Your task to perform on an android device: Add "razer blackwidow" to the cart on walmart, then select checkout. Image 0: 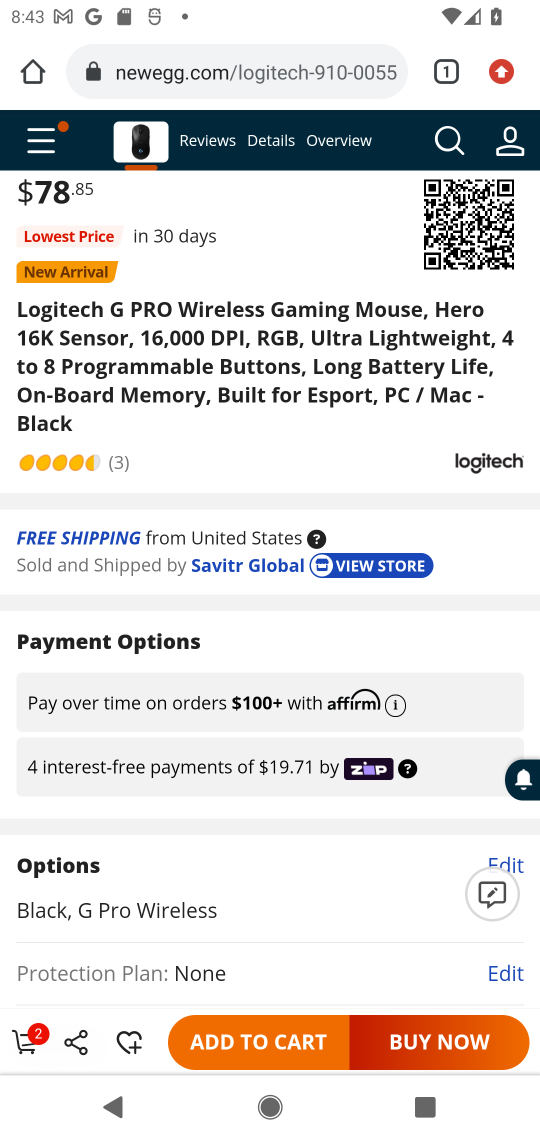
Step 0: click (313, 62)
Your task to perform on an android device: Add "razer blackwidow" to the cart on walmart, then select checkout. Image 1: 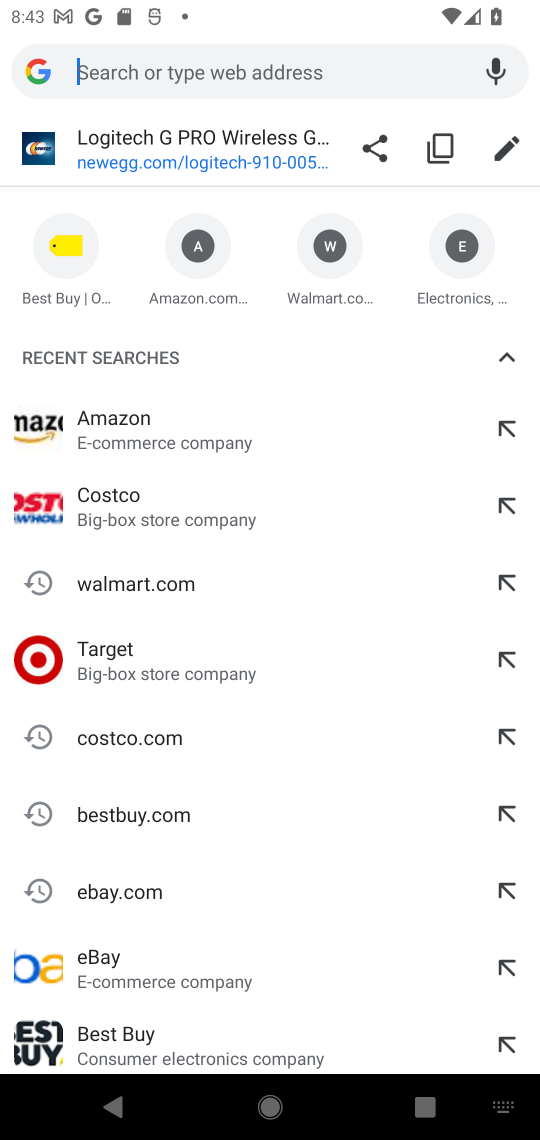
Step 1: type "walmart"
Your task to perform on an android device: Add "razer blackwidow" to the cart on walmart, then select checkout. Image 2: 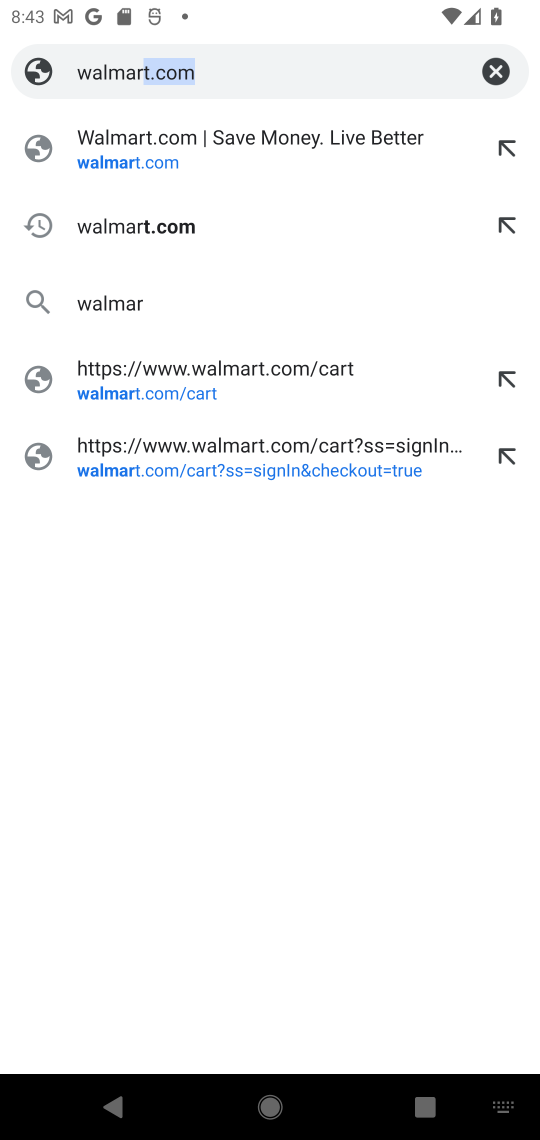
Step 2: press enter
Your task to perform on an android device: Add "razer blackwidow" to the cart on walmart, then select checkout. Image 3: 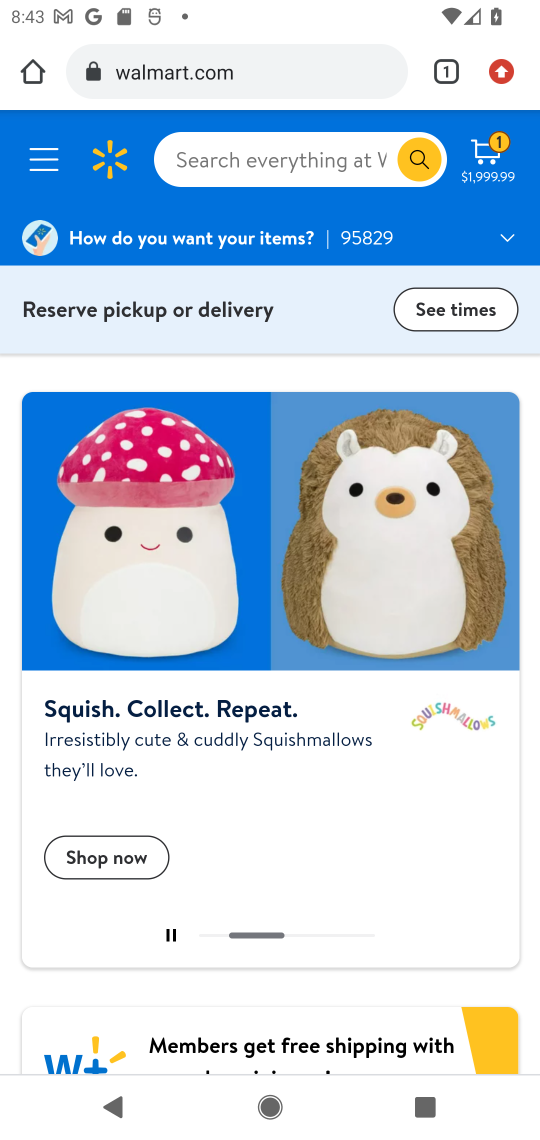
Step 3: click (240, 145)
Your task to perform on an android device: Add "razer blackwidow" to the cart on walmart, then select checkout. Image 4: 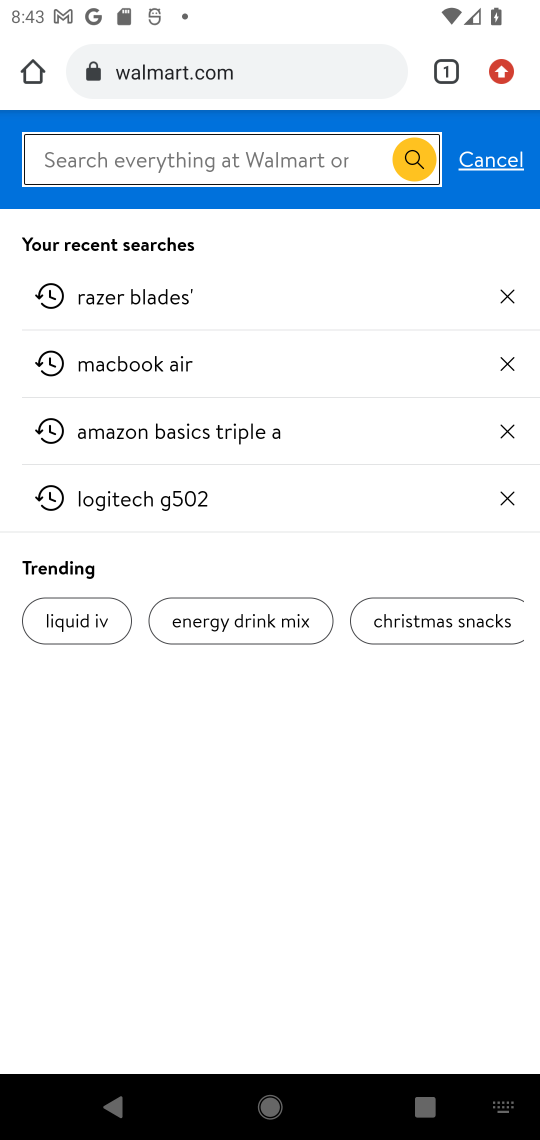
Step 4: type "razer blackwidow"
Your task to perform on an android device: Add "razer blackwidow" to the cart on walmart, then select checkout. Image 5: 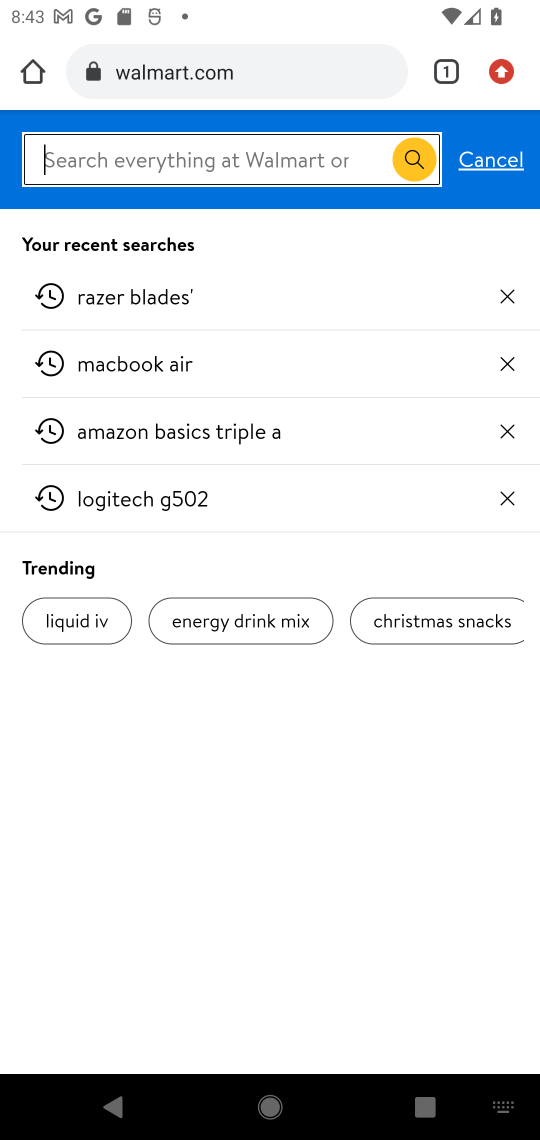
Step 5: press enter
Your task to perform on an android device: Add "razer blackwidow" to the cart on walmart, then select checkout. Image 6: 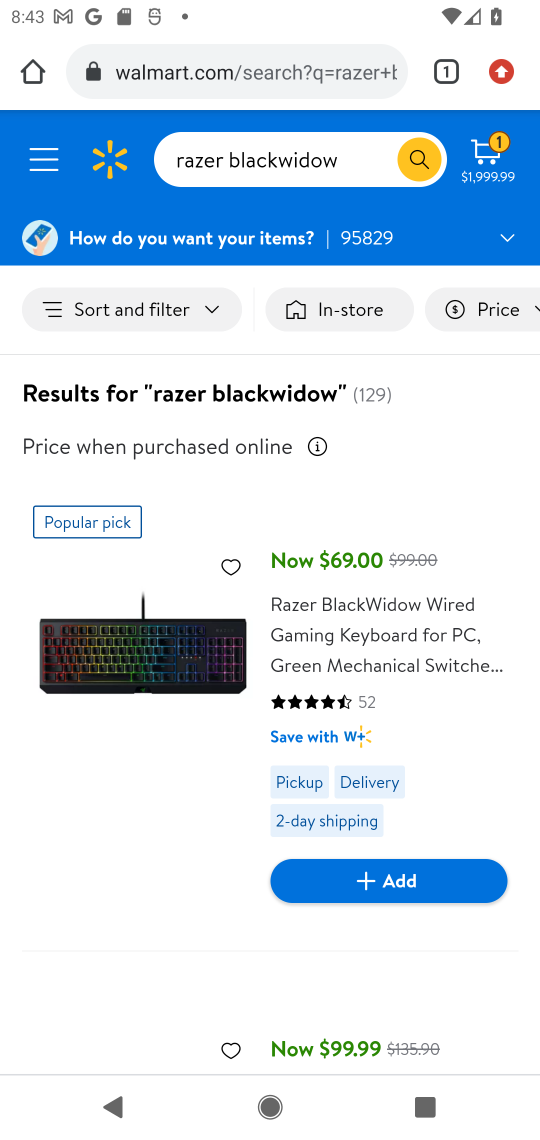
Step 6: click (124, 662)
Your task to perform on an android device: Add "razer blackwidow" to the cart on walmart, then select checkout. Image 7: 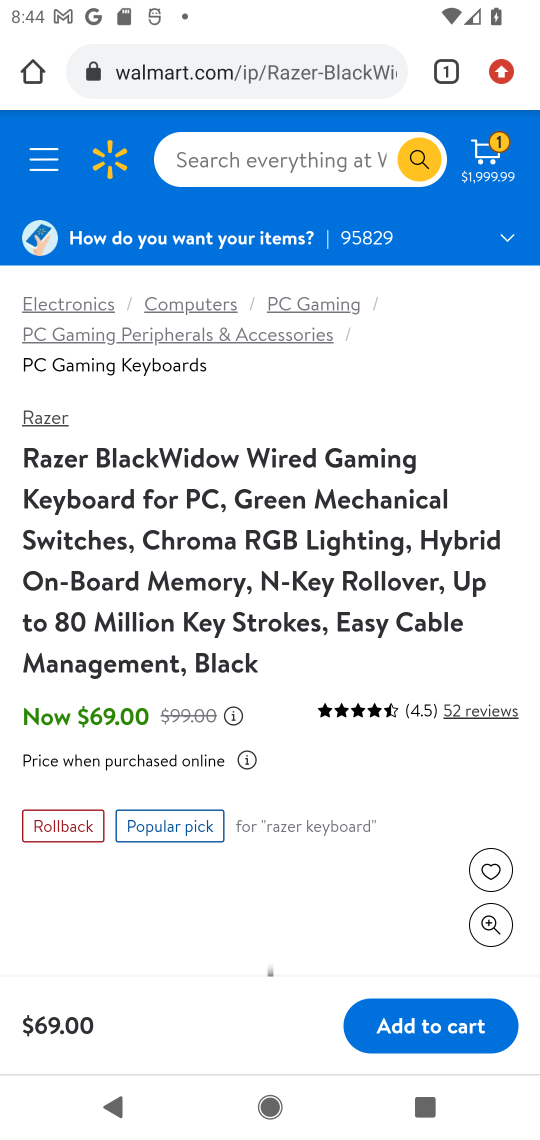
Step 7: click (438, 1020)
Your task to perform on an android device: Add "razer blackwidow" to the cart on walmart, then select checkout. Image 8: 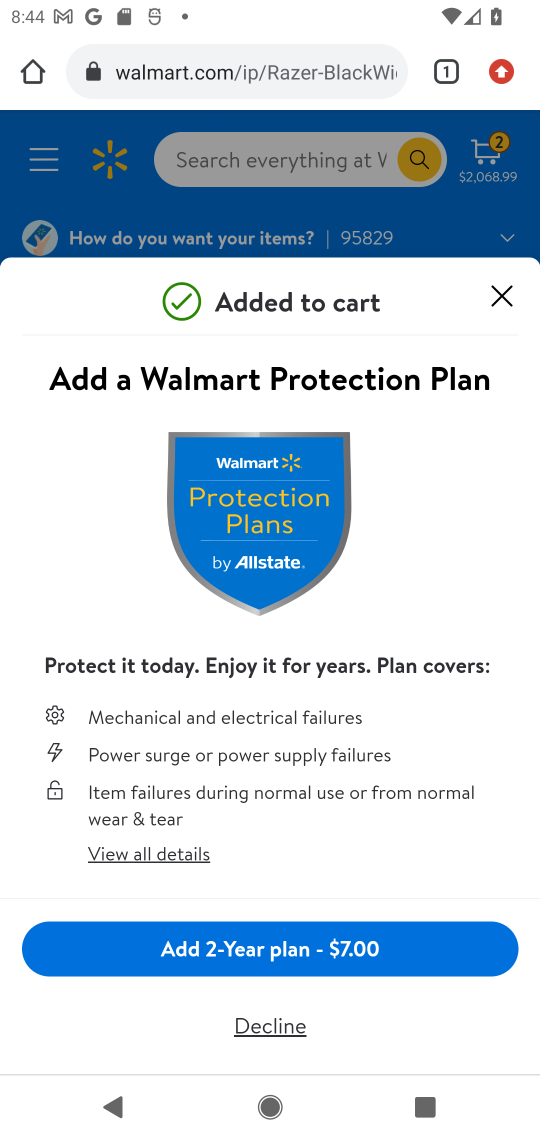
Step 8: click (505, 302)
Your task to perform on an android device: Add "razer blackwidow" to the cart on walmart, then select checkout. Image 9: 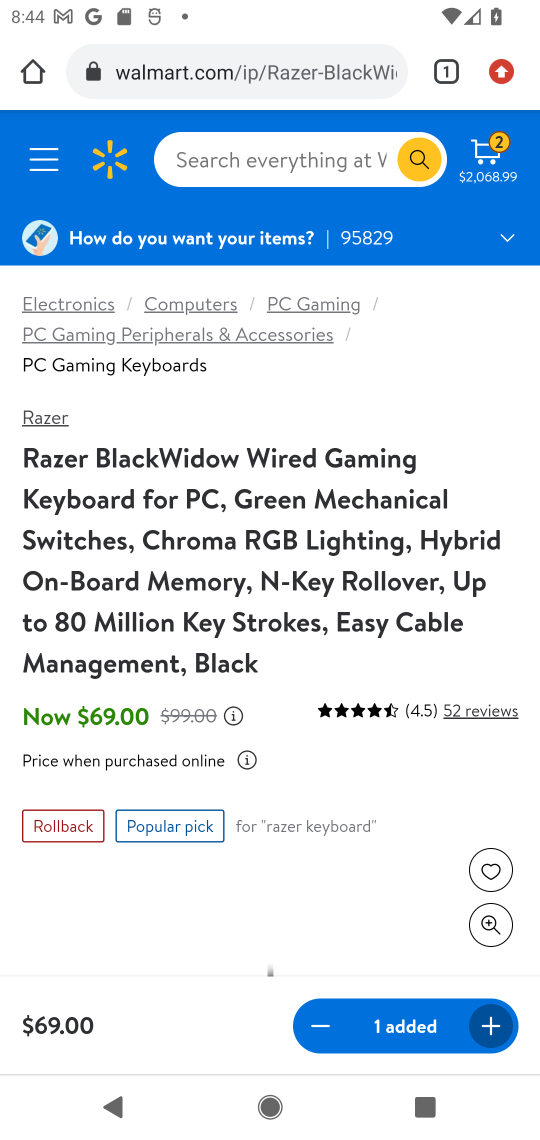
Step 9: click (482, 157)
Your task to perform on an android device: Add "razer blackwidow" to the cart on walmart, then select checkout. Image 10: 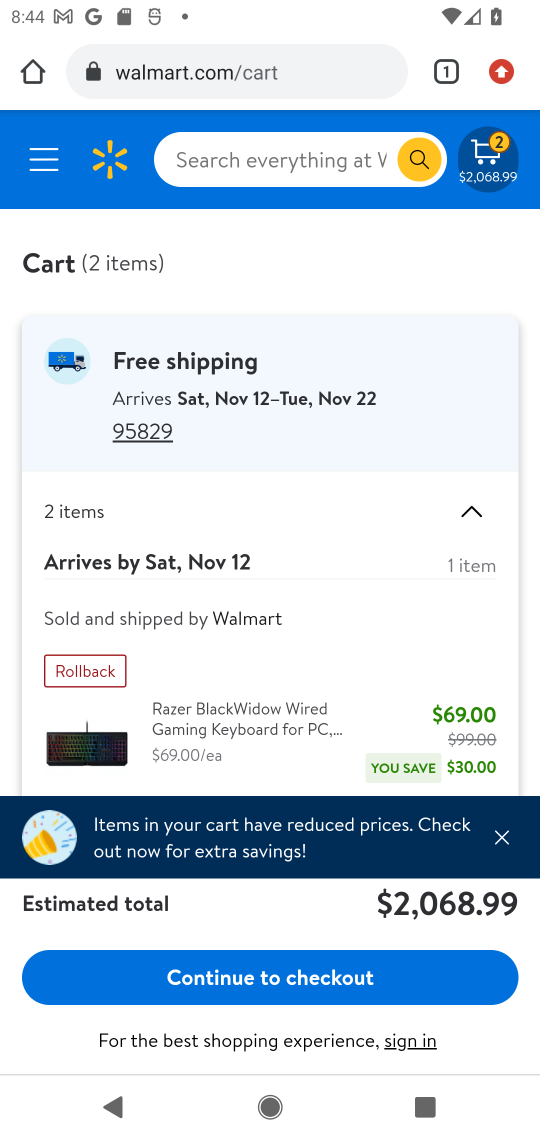
Step 10: click (320, 981)
Your task to perform on an android device: Add "razer blackwidow" to the cart on walmart, then select checkout. Image 11: 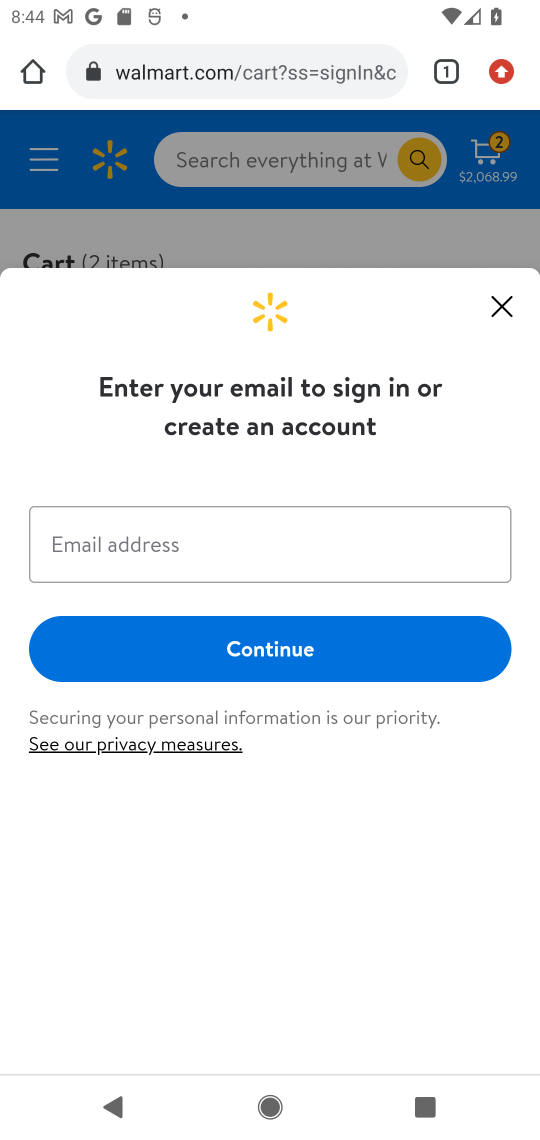
Step 11: task complete